Your task to perform on an android device: install app "Google Play Music" Image 0: 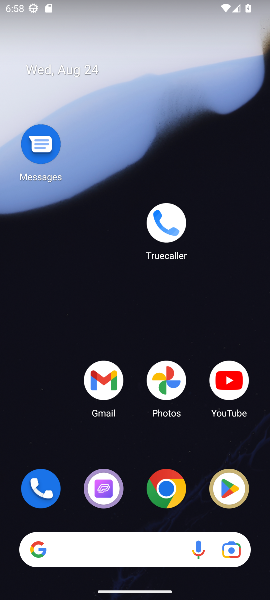
Step 0: click (224, 498)
Your task to perform on an android device: install app "Google Play Music" Image 1: 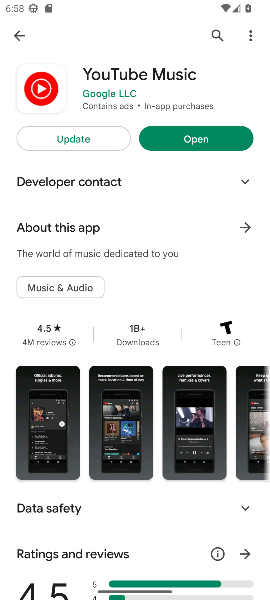
Step 1: click (212, 32)
Your task to perform on an android device: install app "Google Play Music" Image 2: 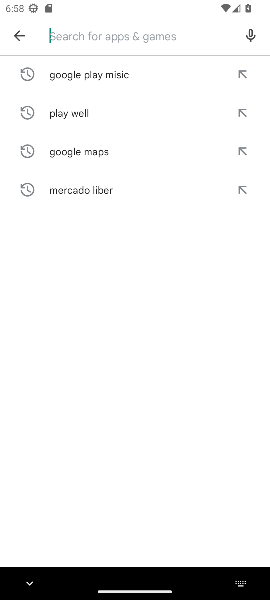
Step 2: click (70, 72)
Your task to perform on an android device: install app "Google Play Music" Image 3: 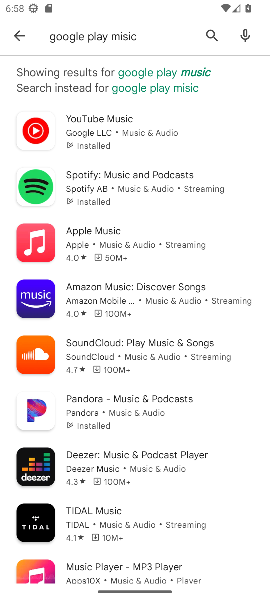
Step 3: click (93, 123)
Your task to perform on an android device: install app "Google Play Music" Image 4: 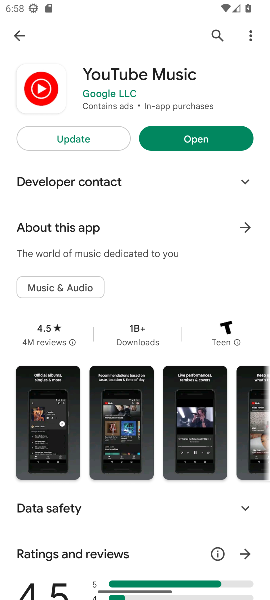
Step 4: click (93, 145)
Your task to perform on an android device: install app "Google Play Music" Image 5: 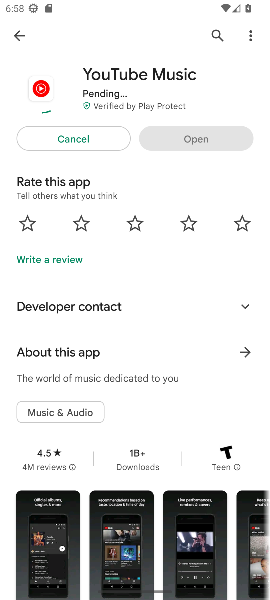
Step 5: task complete